Your task to perform on an android device: toggle location history Image 0: 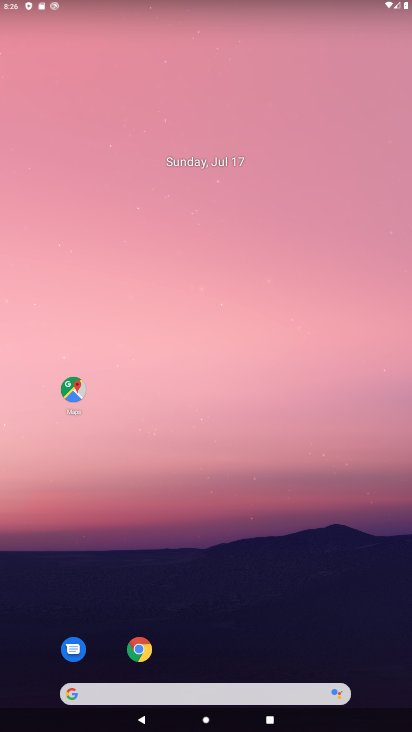
Step 0: drag from (210, 660) to (252, 142)
Your task to perform on an android device: toggle location history Image 1: 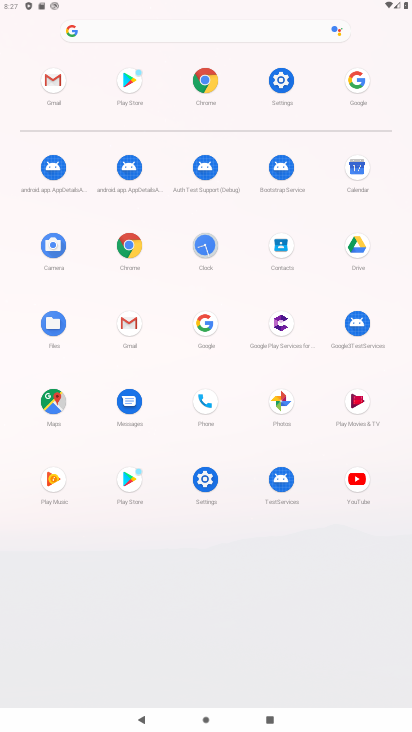
Step 1: click (206, 477)
Your task to perform on an android device: toggle location history Image 2: 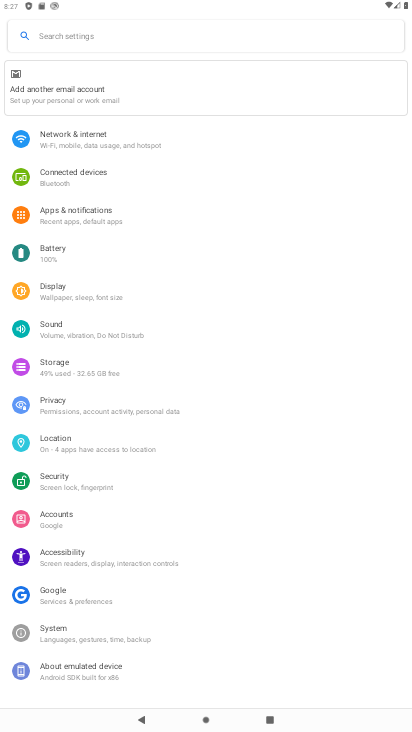
Step 2: click (63, 440)
Your task to perform on an android device: toggle location history Image 3: 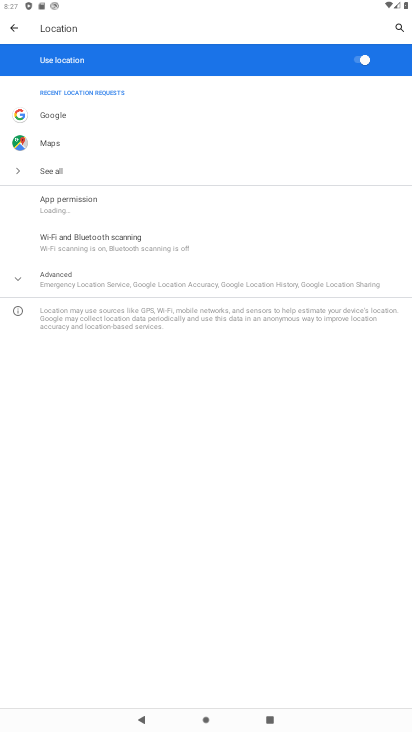
Step 3: click (64, 277)
Your task to perform on an android device: toggle location history Image 4: 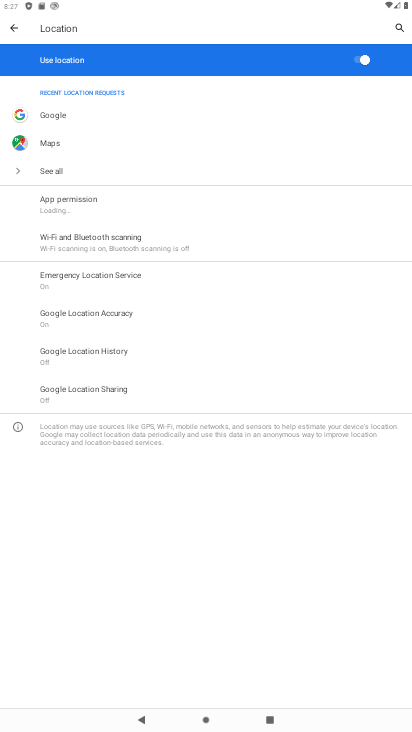
Step 4: click (128, 349)
Your task to perform on an android device: toggle location history Image 5: 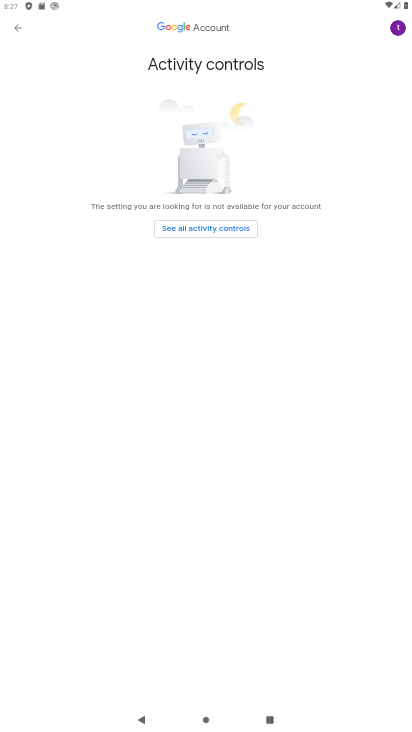
Step 5: task complete